Your task to perform on an android device: Open Google Chrome and open the bookmarks view Image 0: 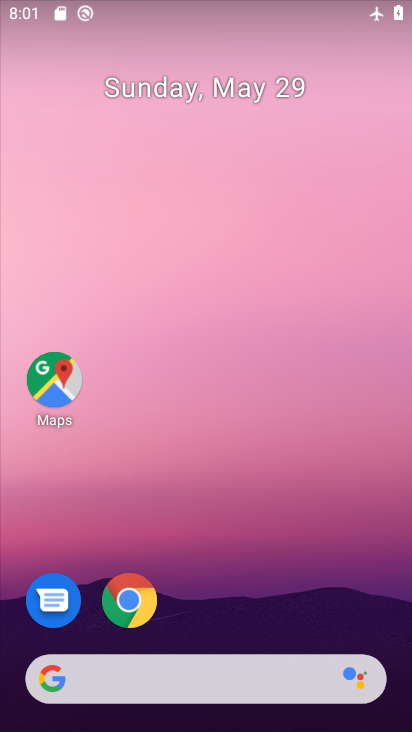
Step 0: click (150, 610)
Your task to perform on an android device: Open Google Chrome and open the bookmarks view Image 1: 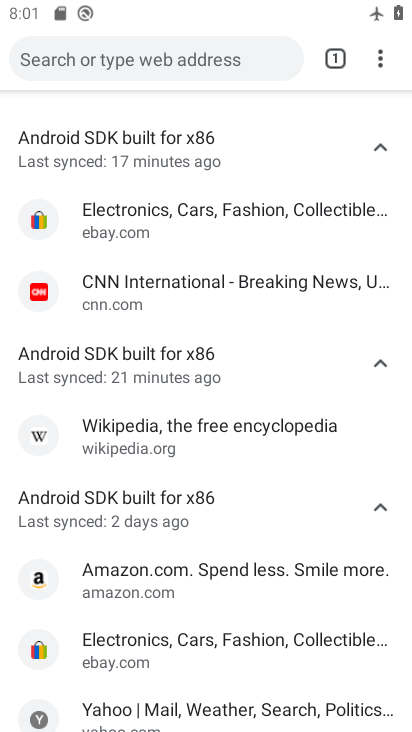
Step 1: click (384, 56)
Your task to perform on an android device: Open Google Chrome and open the bookmarks view Image 2: 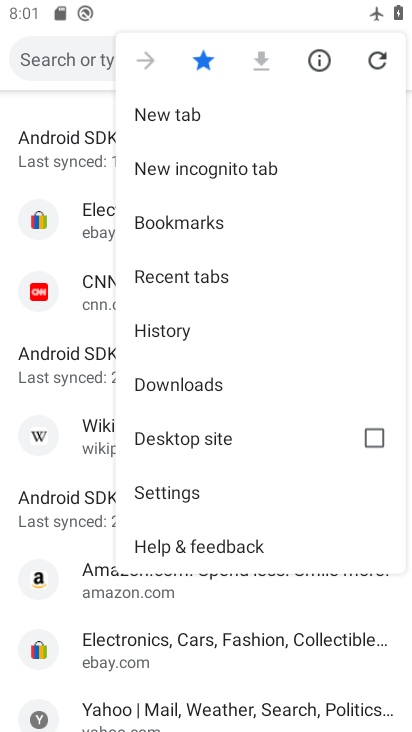
Step 2: click (217, 225)
Your task to perform on an android device: Open Google Chrome and open the bookmarks view Image 3: 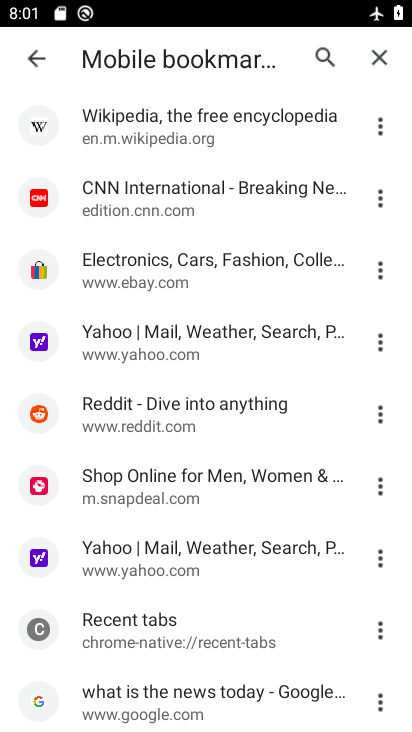
Step 3: task complete